Your task to perform on an android device: Go to Amazon Image 0: 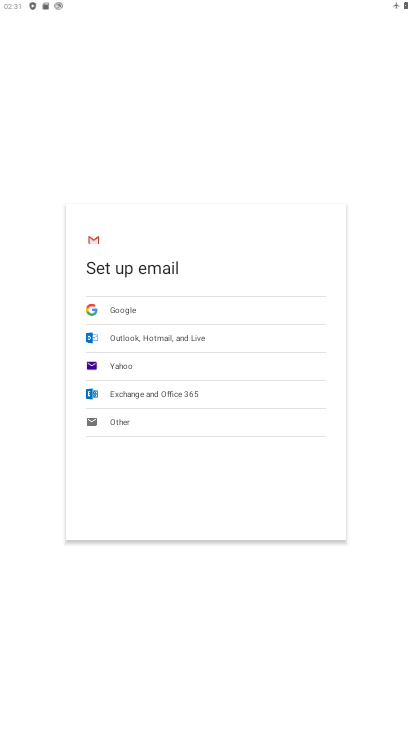
Step 0: press home button
Your task to perform on an android device: Go to Amazon Image 1: 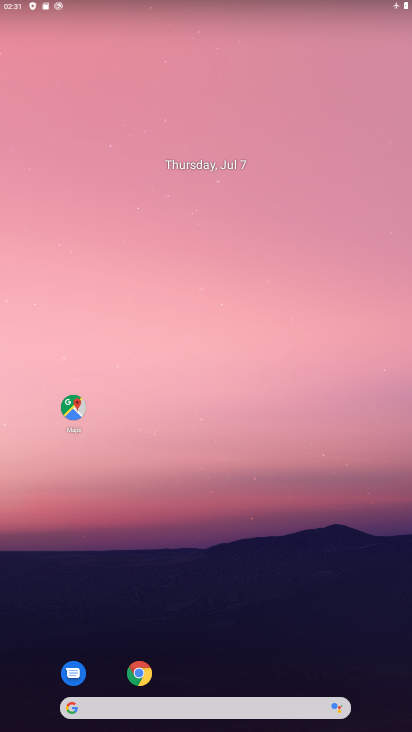
Step 1: click (148, 667)
Your task to perform on an android device: Go to Amazon Image 2: 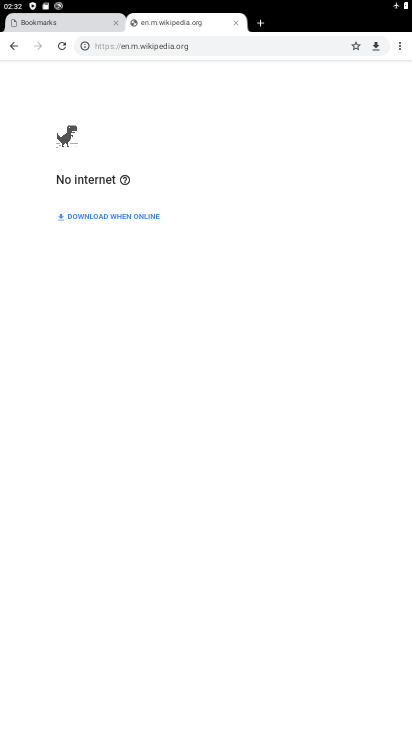
Step 2: click (256, 18)
Your task to perform on an android device: Go to Amazon Image 3: 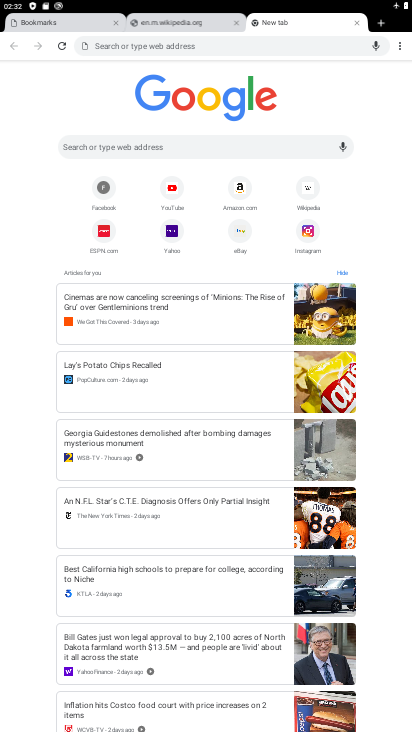
Step 3: click (241, 191)
Your task to perform on an android device: Go to Amazon Image 4: 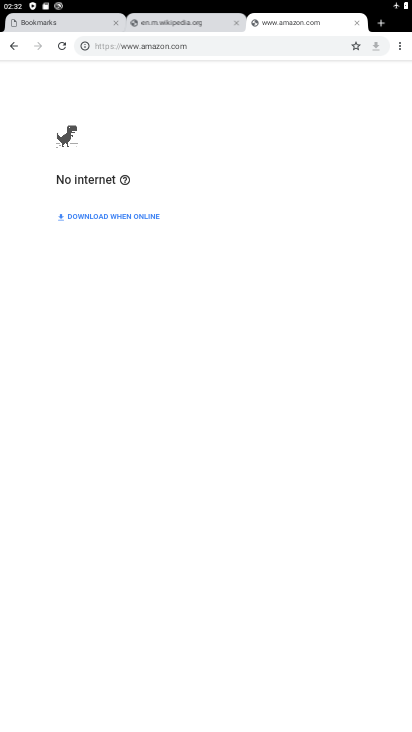
Step 4: task complete